Your task to perform on an android device: Go to Maps Image 0: 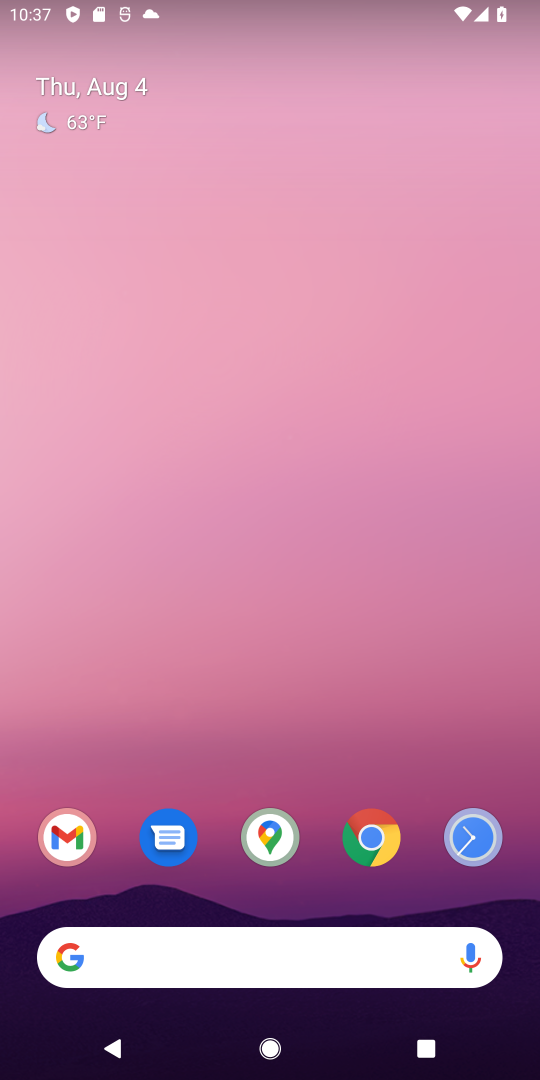
Step 0: drag from (222, 805) to (283, 186)
Your task to perform on an android device: Go to Maps Image 1: 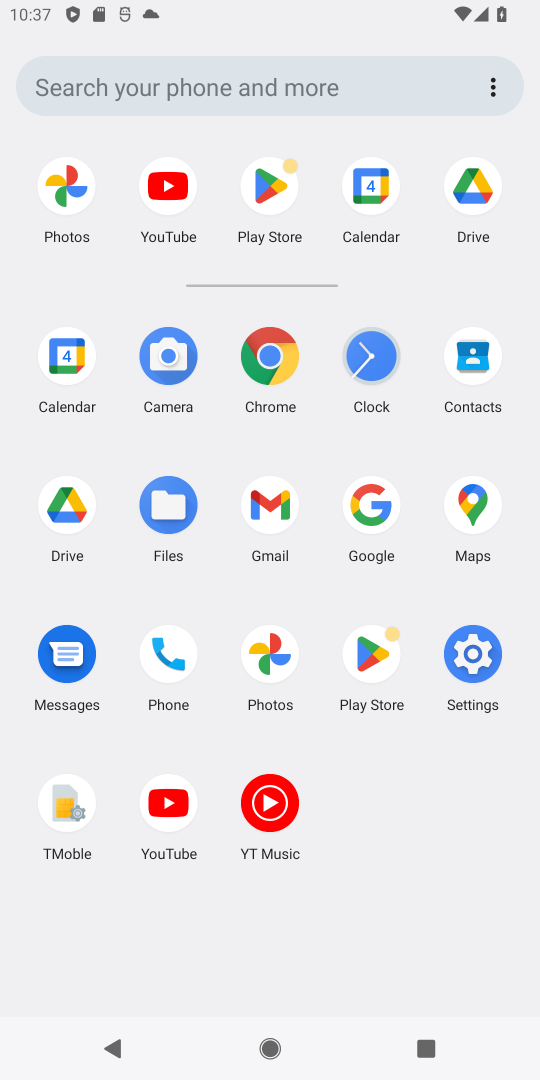
Step 1: click (476, 482)
Your task to perform on an android device: Go to Maps Image 2: 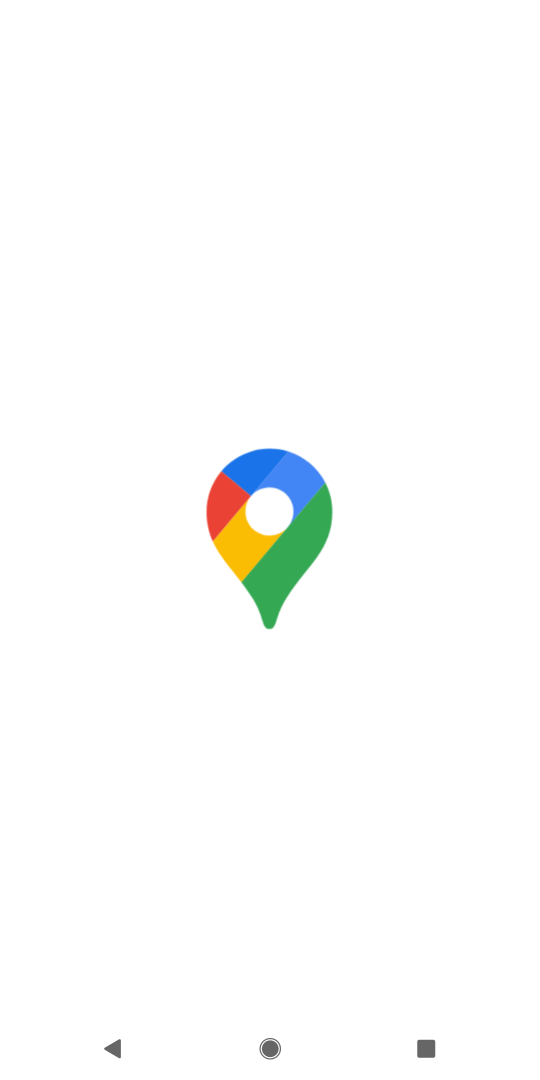
Step 2: task complete